Your task to perform on an android device: see creations saved in the google photos Image 0: 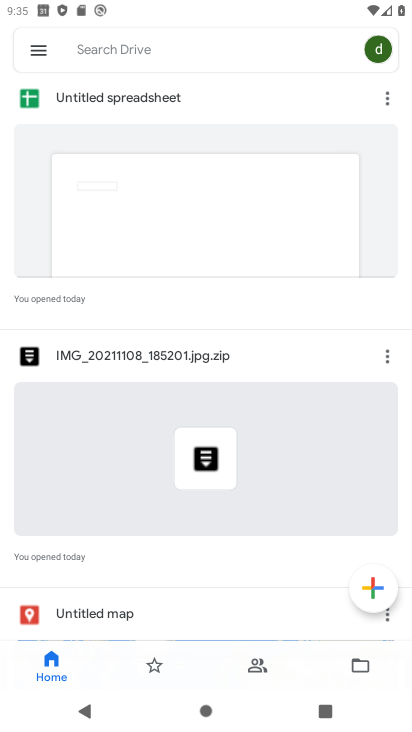
Step 0: press home button
Your task to perform on an android device: see creations saved in the google photos Image 1: 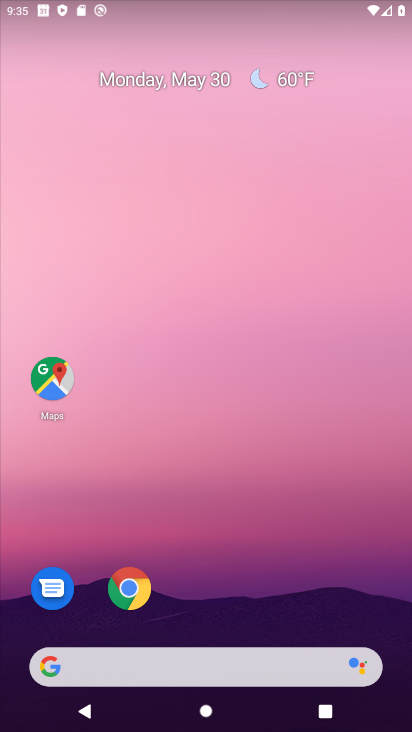
Step 1: drag from (199, 622) to (321, 9)
Your task to perform on an android device: see creations saved in the google photos Image 2: 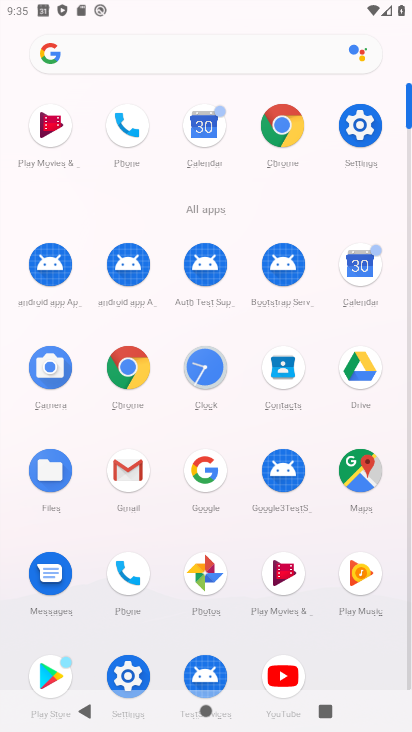
Step 2: click (213, 575)
Your task to perform on an android device: see creations saved in the google photos Image 3: 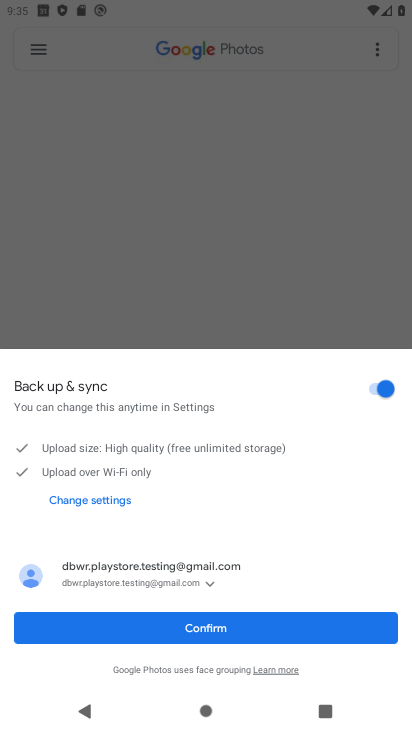
Step 3: click (198, 637)
Your task to perform on an android device: see creations saved in the google photos Image 4: 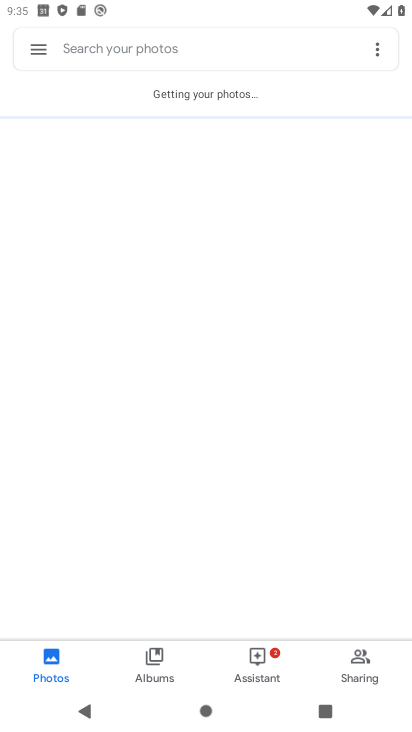
Step 4: click (188, 48)
Your task to perform on an android device: see creations saved in the google photos Image 5: 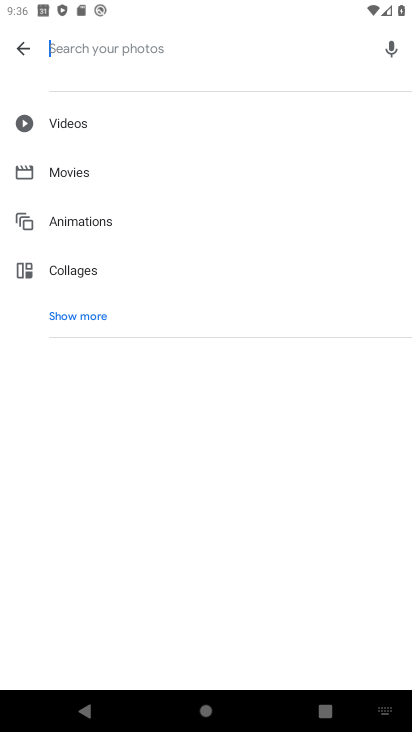
Step 5: type "creations"
Your task to perform on an android device: see creations saved in the google photos Image 6: 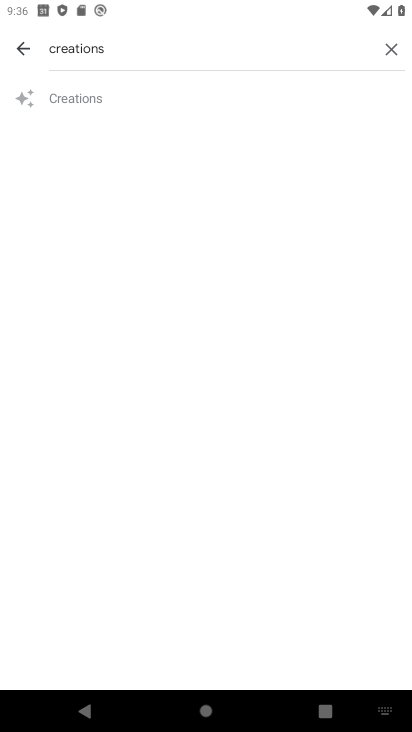
Step 6: click (109, 105)
Your task to perform on an android device: see creations saved in the google photos Image 7: 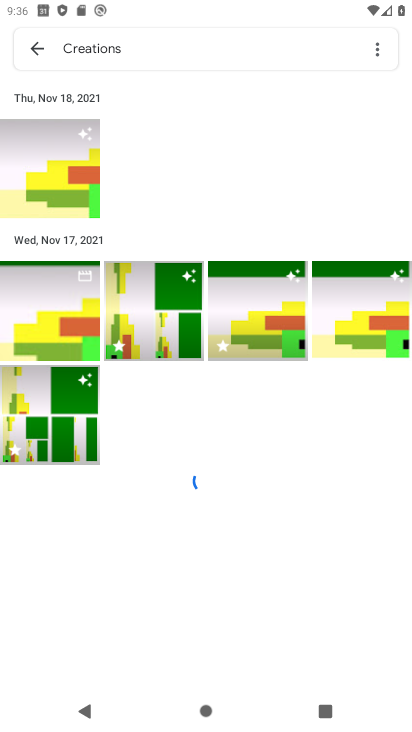
Step 7: task complete